Your task to perform on an android device: turn off wifi Image 0: 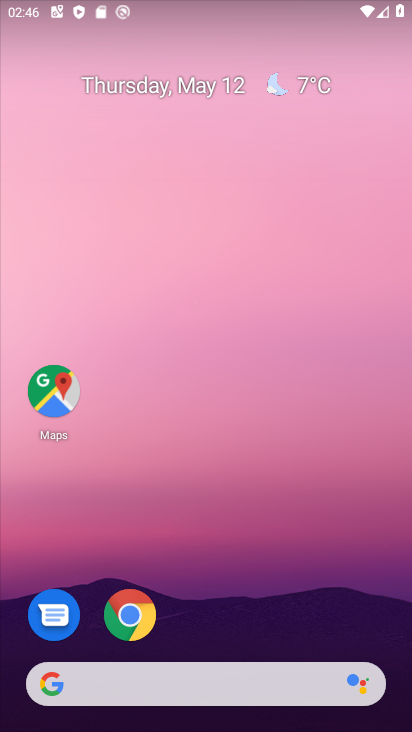
Step 0: drag from (294, 681) to (238, 371)
Your task to perform on an android device: turn off wifi Image 1: 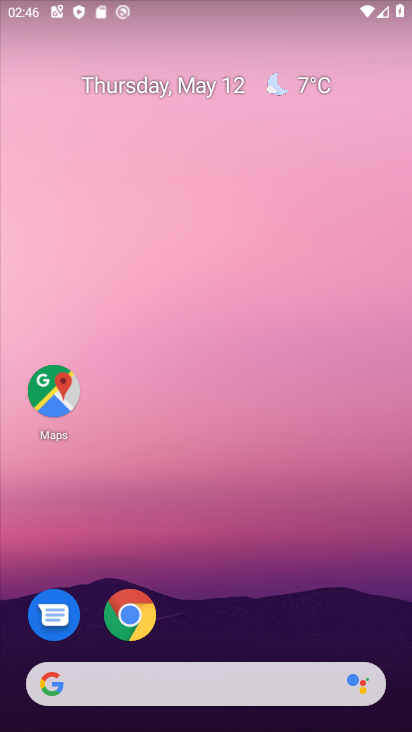
Step 1: drag from (258, 678) to (201, 225)
Your task to perform on an android device: turn off wifi Image 2: 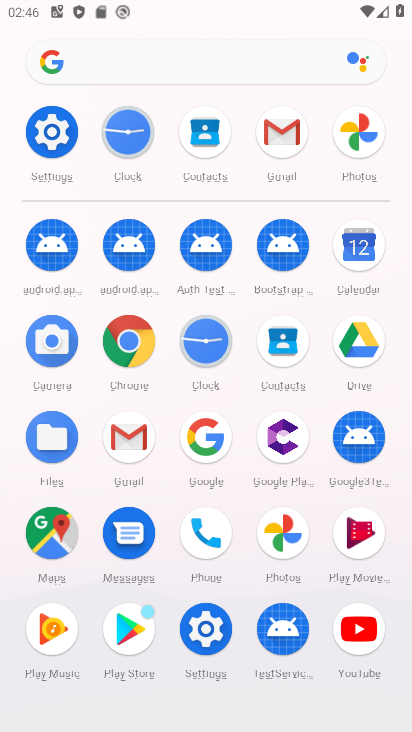
Step 2: click (57, 141)
Your task to perform on an android device: turn off wifi Image 3: 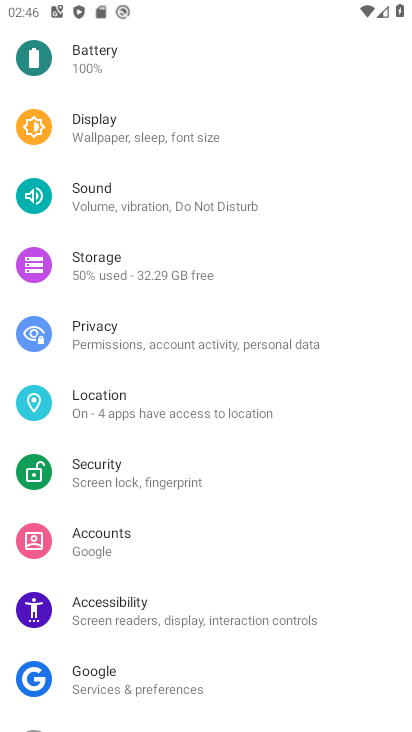
Step 3: drag from (141, 145) to (201, 398)
Your task to perform on an android device: turn off wifi Image 4: 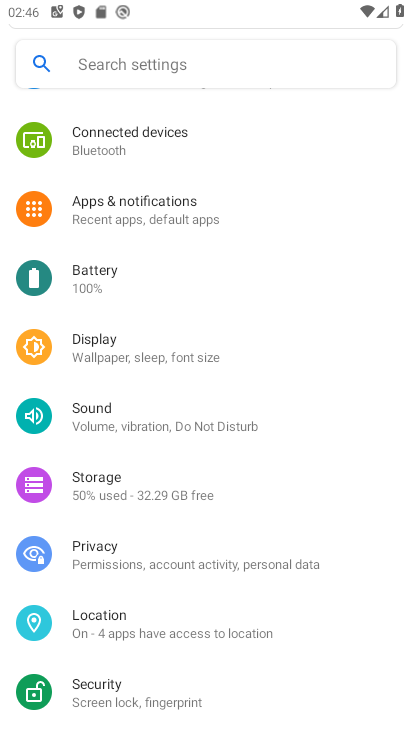
Step 4: drag from (192, 148) to (294, 389)
Your task to perform on an android device: turn off wifi Image 5: 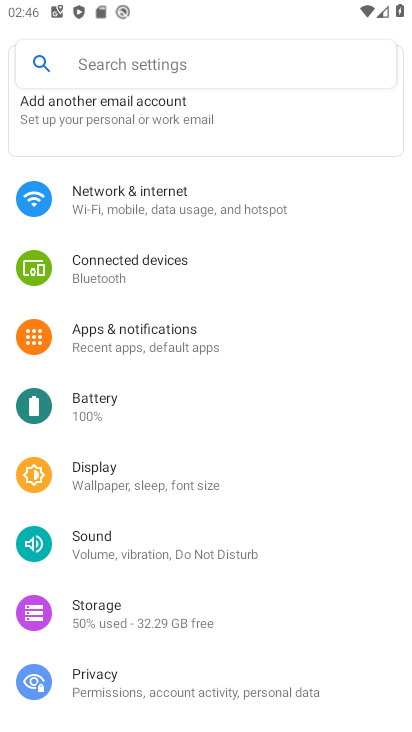
Step 5: click (186, 199)
Your task to perform on an android device: turn off wifi Image 6: 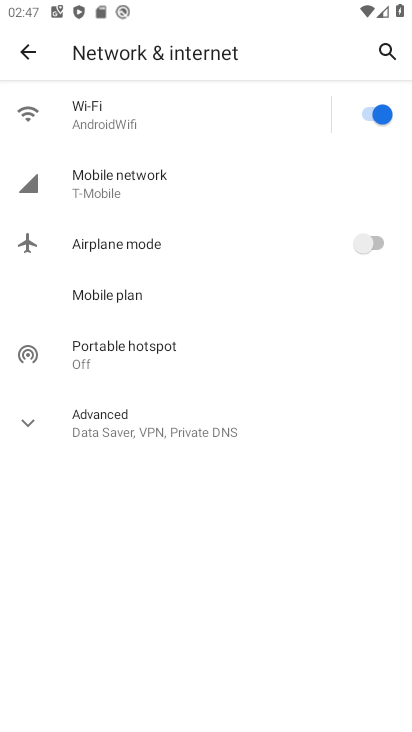
Step 6: click (382, 113)
Your task to perform on an android device: turn off wifi Image 7: 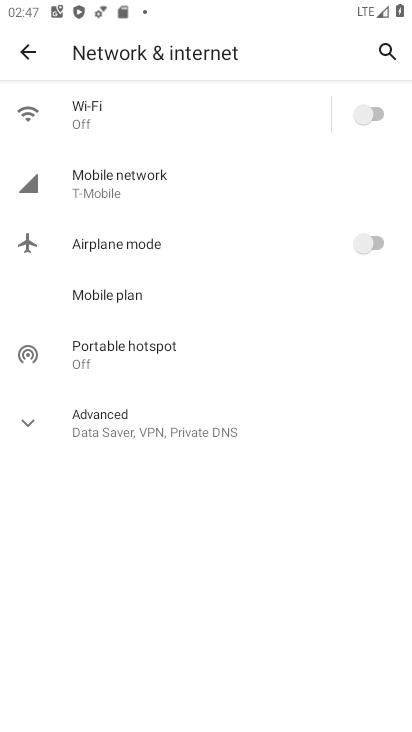
Step 7: task complete